Your task to perform on an android device: check storage Image 0: 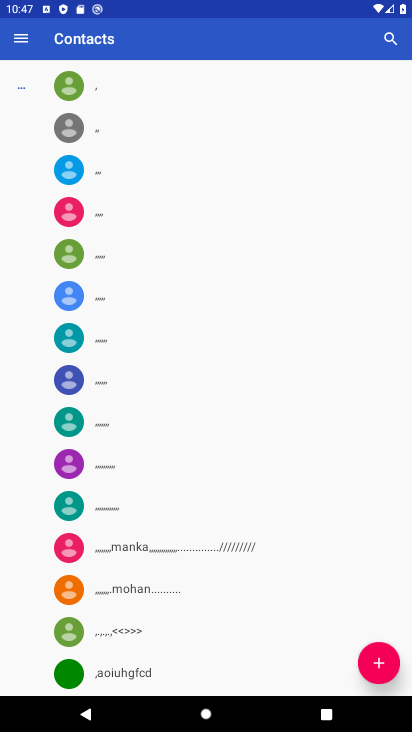
Step 0: task complete